Your task to perform on an android device: make emails show in primary in the gmail app Image 0: 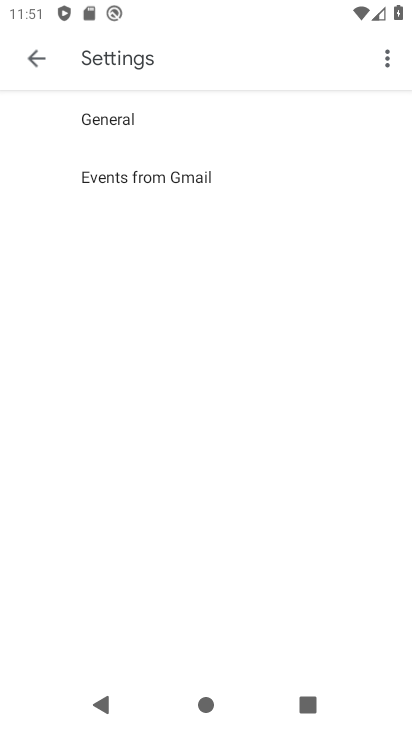
Step 0: press home button
Your task to perform on an android device: make emails show in primary in the gmail app Image 1: 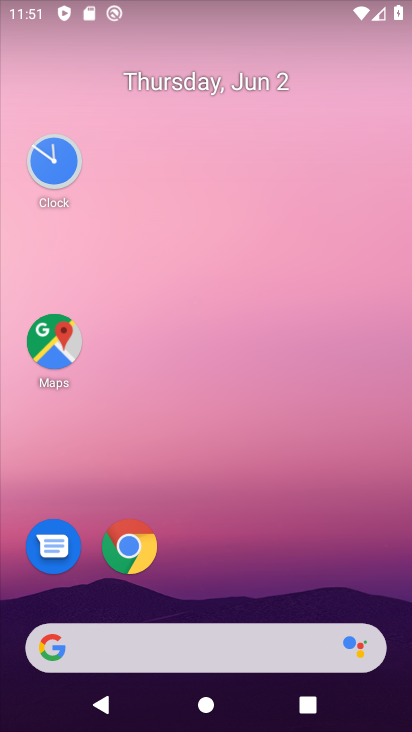
Step 1: drag from (52, 459) to (362, 449)
Your task to perform on an android device: make emails show in primary in the gmail app Image 2: 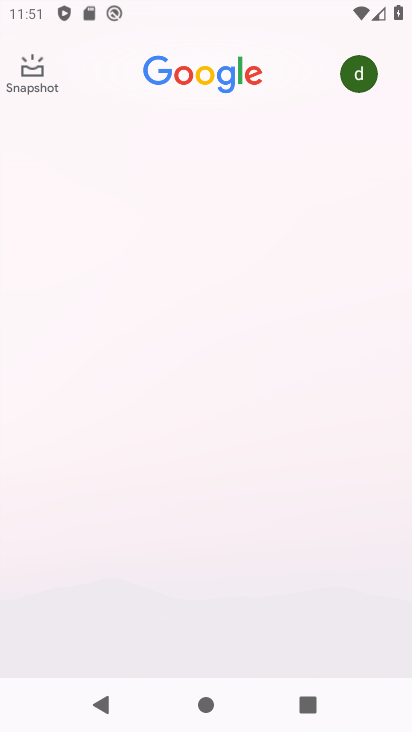
Step 2: drag from (341, 447) to (7, 407)
Your task to perform on an android device: make emails show in primary in the gmail app Image 3: 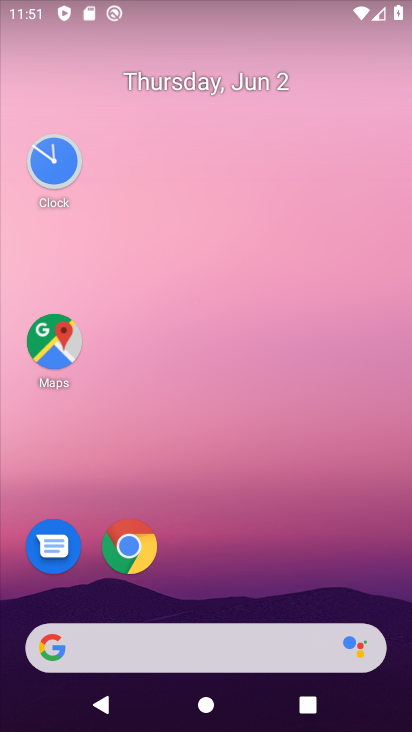
Step 3: drag from (310, 549) to (301, 183)
Your task to perform on an android device: make emails show in primary in the gmail app Image 4: 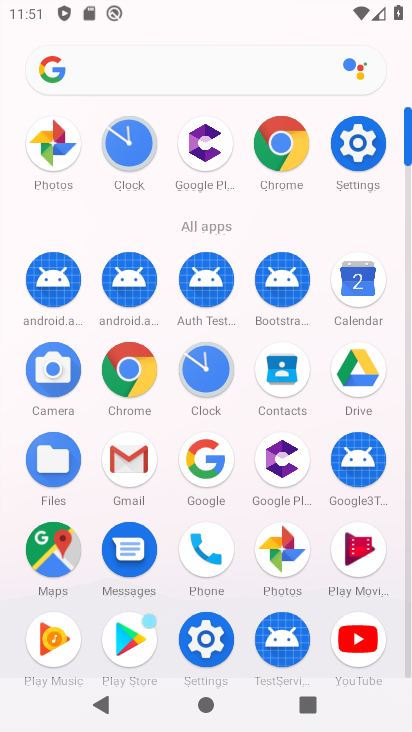
Step 4: drag from (137, 460) to (137, 330)
Your task to perform on an android device: make emails show in primary in the gmail app Image 5: 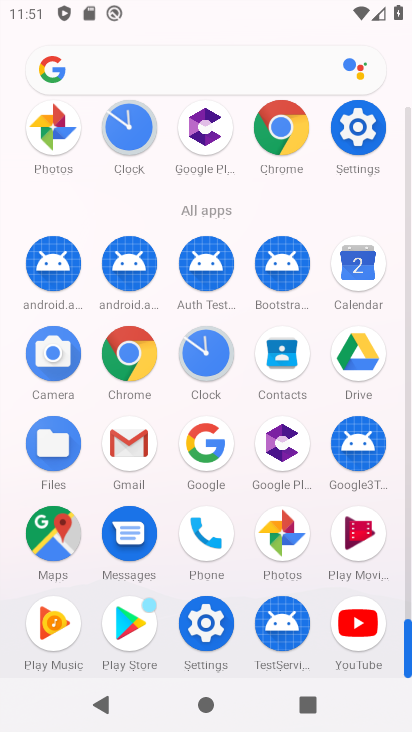
Step 5: drag from (118, 447) to (152, 193)
Your task to perform on an android device: make emails show in primary in the gmail app Image 6: 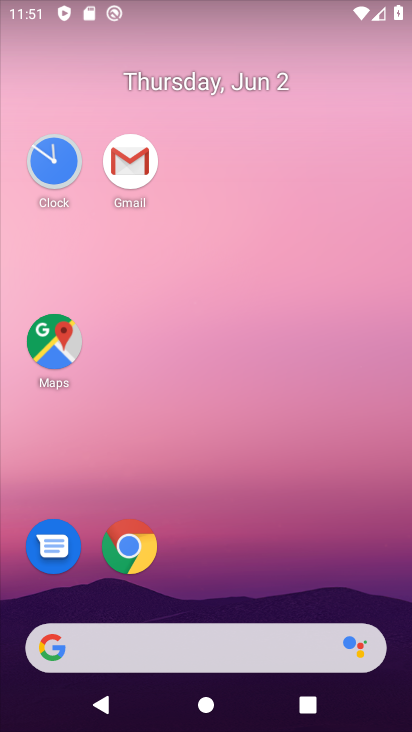
Step 6: click (139, 161)
Your task to perform on an android device: make emails show in primary in the gmail app Image 7: 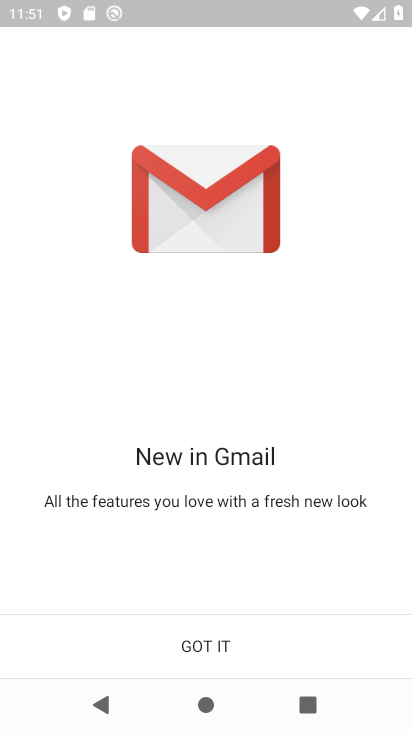
Step 7: click (239, 648)
Your task to perform on an android device: make emails show in primary in the gmail app Image 8: 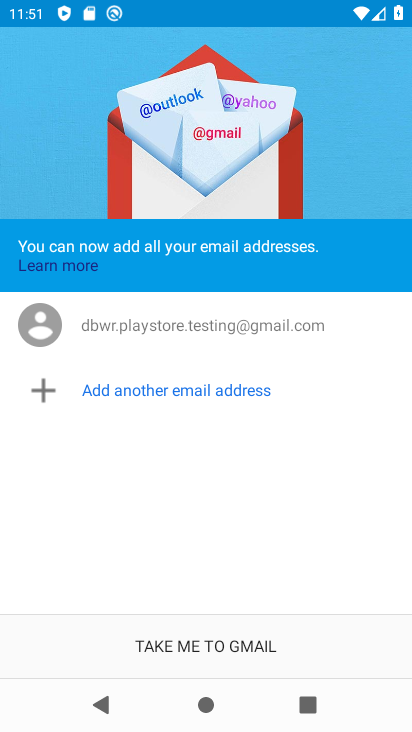
Step 8: click (236, 636)
Your task to perform on an android device: make emails show in primary in the gmail app Image 9: 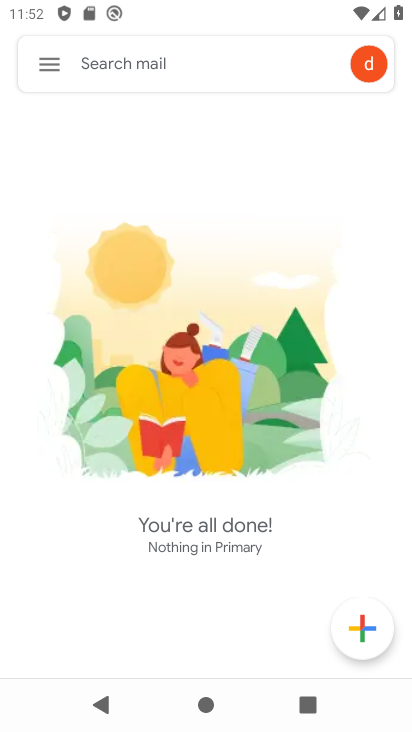
Step 9: click (49, 63)
Your task to perform on an android device: make emails show in primary in the gmail app Image 10: 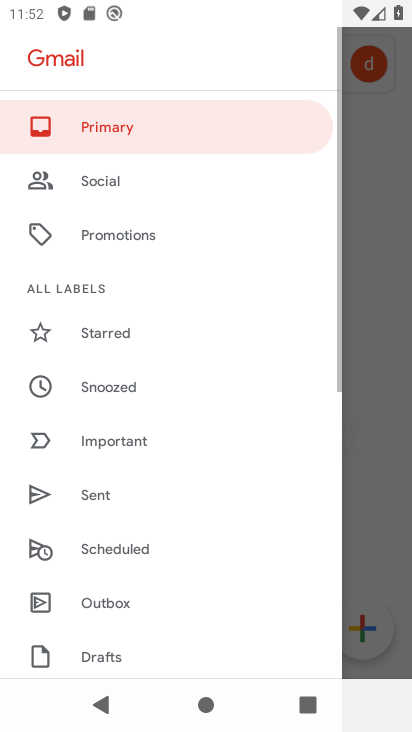
Step 10: drag from (217, 616) to (210, 227)
Your task to perform on an android device: make emails show in primary in the gmail app Image 11: 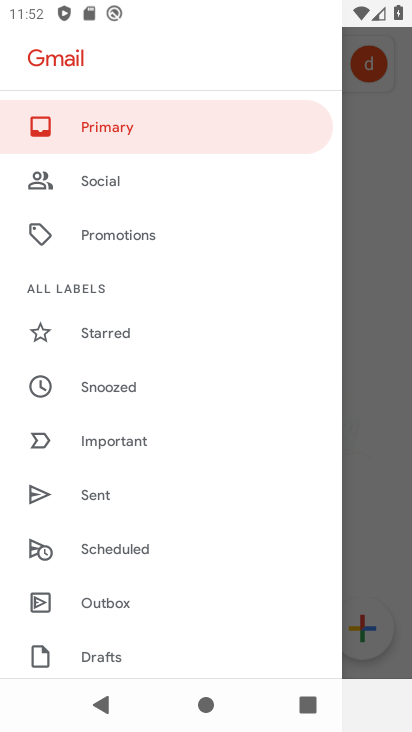
Step 11: drag from (189, 575) to (254, 184)
Your task to perform on an android device: make emails show in primary in the gmail app Image 12: 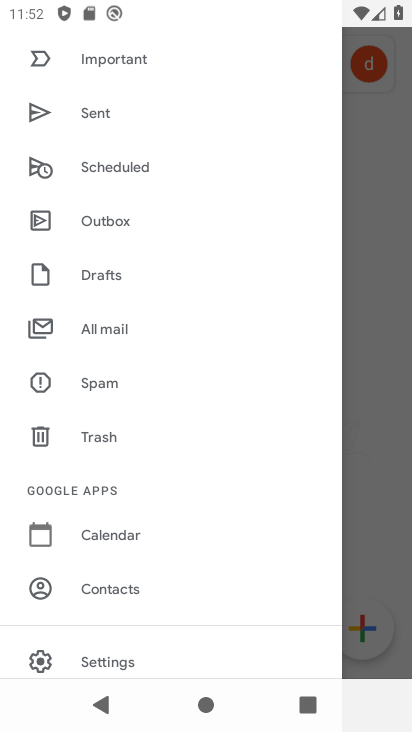
Step 12: click (153, 658)
Your task to perform on an android device: make emails show in primary in the gmail app Image 13: 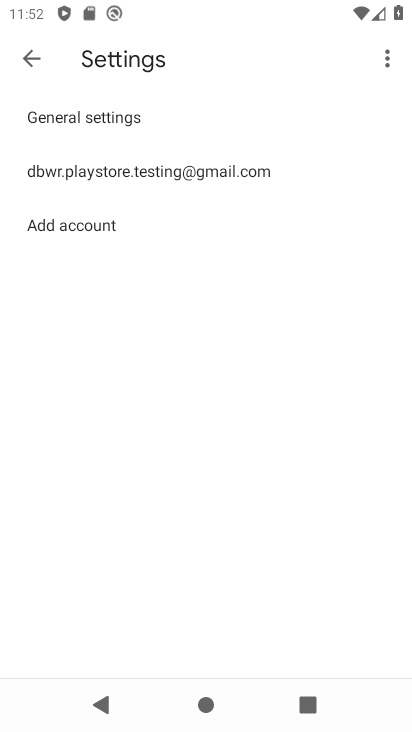
Step 13: click (184, 162)
Your task to perform on an android device: make emails show in primary in the gmail app Image 14: 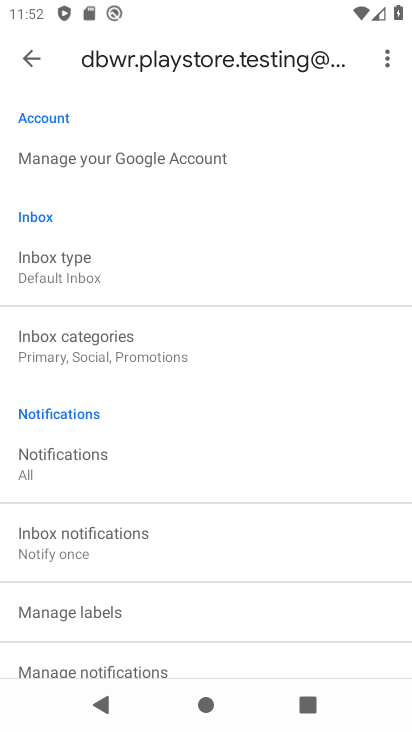
Step 14: click (140, 332)
Your task to perform on an android device: make emails show in primary in the gmail app Image 15: 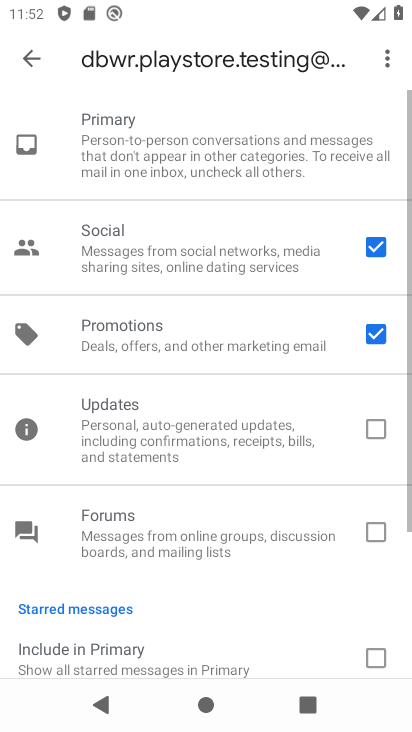
Step 15: click (380, 235)
Your task to perform on an android device: make emails show in primary in the gmail app Image 16: 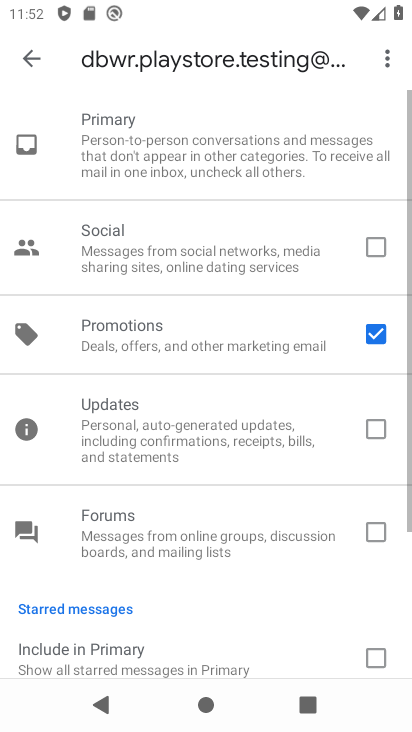
Step 16: click (384, 329)
Your task to perform on an android device: make emails show in primary in the gmail app Image 17: 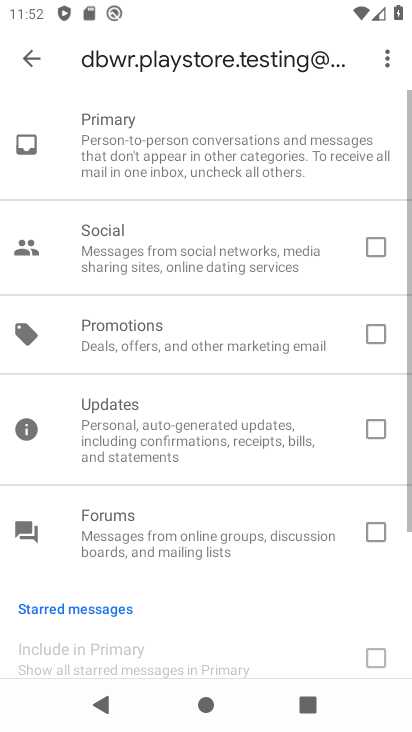
Step 17: task complete